Your task to perform on an android device: turn on sleep mode Image 0: 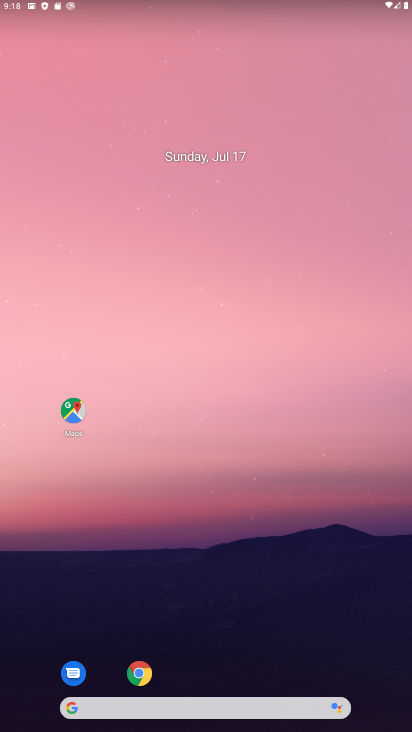
Step 0: drag from (276, 598) to (157, 47)
Your task to perform on an android device: turn on sleep mode Image 1: 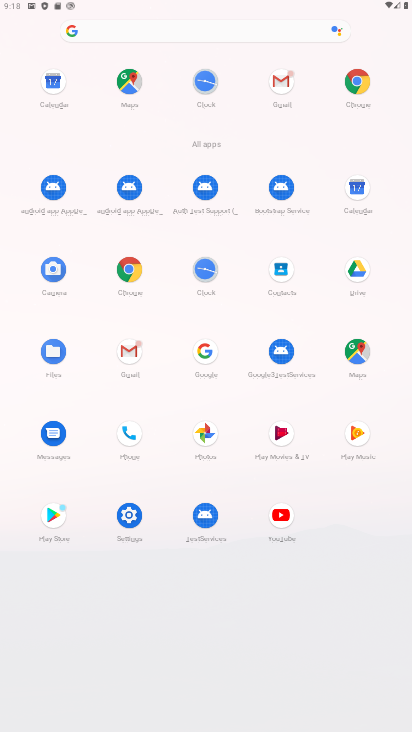
Step 1: click (130, 509)
Your task to perform on an android device: turn on sleep mode Image 2: 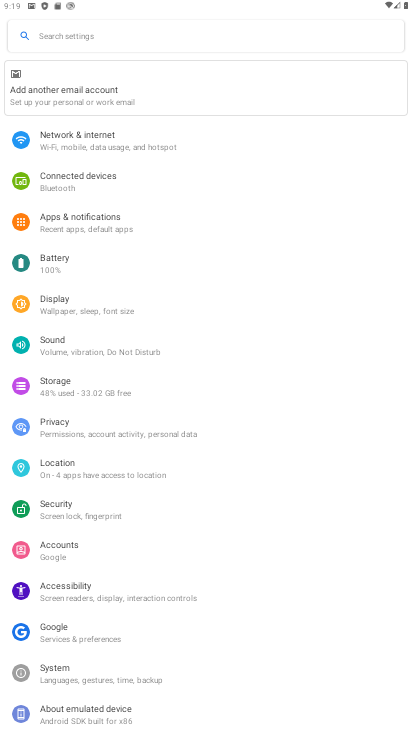
Step 2: click (56, 298)
Your task to perform on an android device: turn on sleep mode Image 3: 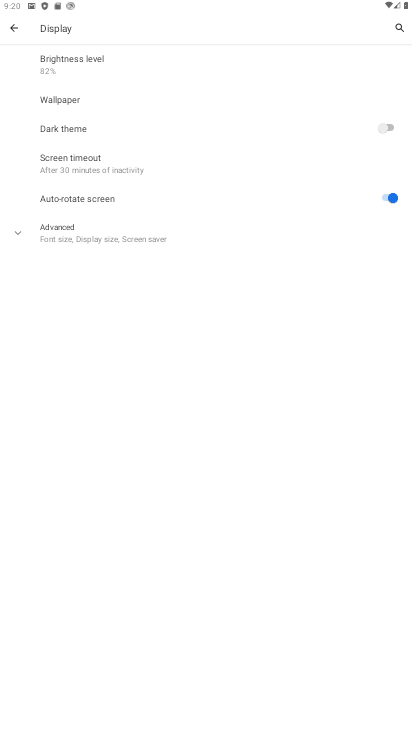
Step 3: task complete